Your task to perform on an android device: Search for pizza restaurants on Maps Image 0: 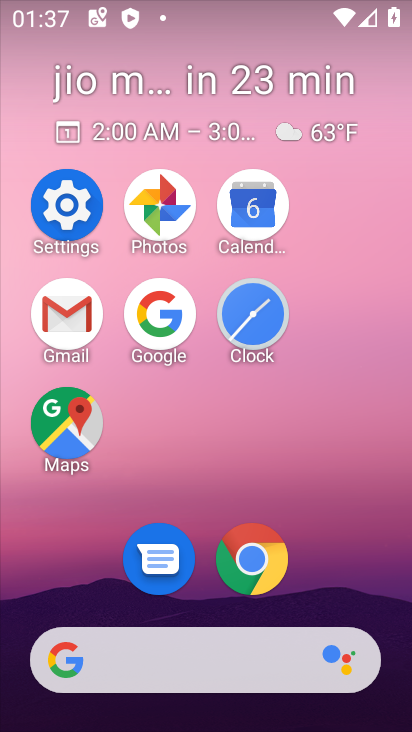
Step 0: click (73, 404)
Your task to perform on an android device: Search for pizza restaurants on Maps Image 1: 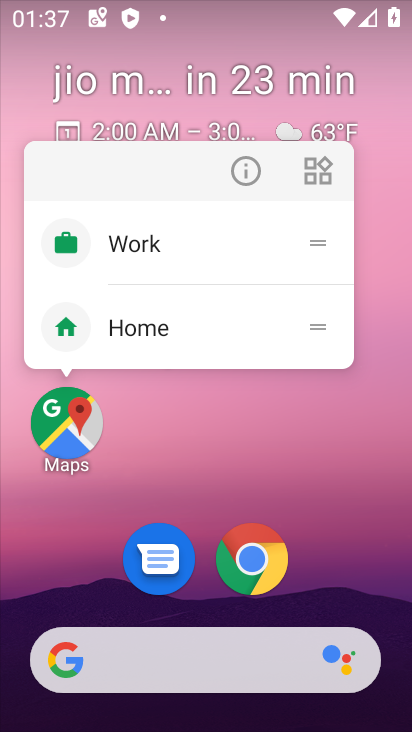
Step 1: click (77, 428)
Your task to perform on an android device: Search for pizza restaurants on Maps Image 2: 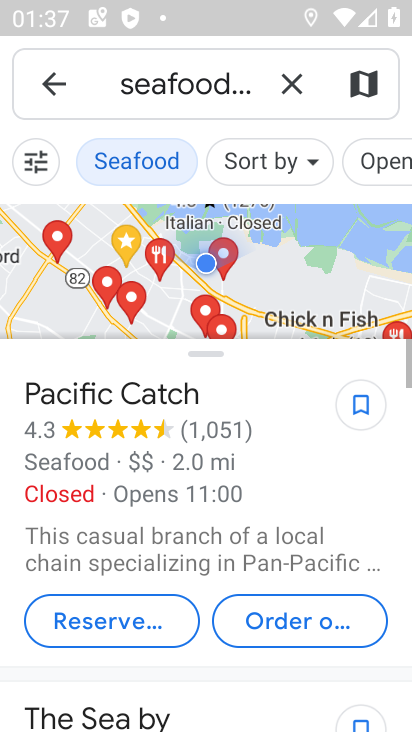
Step 2: click (285, 92)
Your task to perform on an android device: Search for pizza restaurants on Maps Image 3: 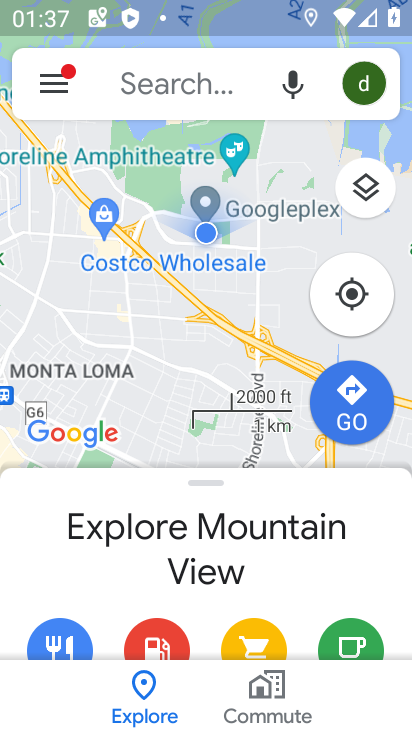
Step 3: click (181, 67)
Your task to perform on an android device: Search for pizza restaurants on Maps Image 4: 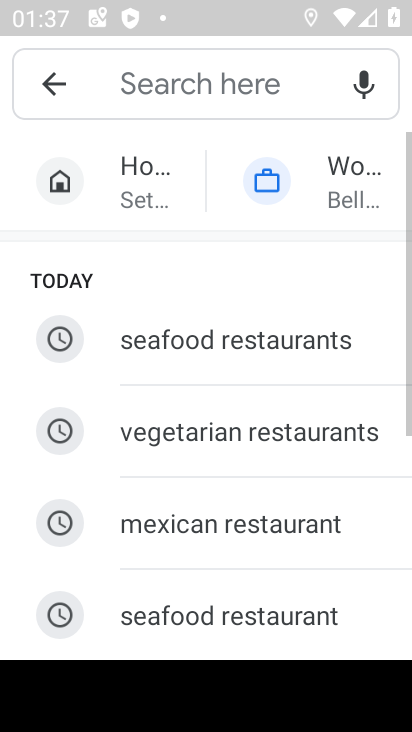
Step 4: drag from (180, 532) to (228, 193)
Your task to perform on an android device: Search for pizza restaurants on Maps Image 5: 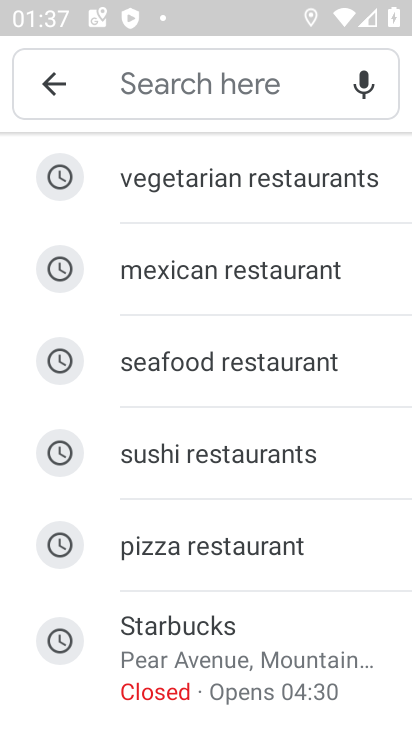
Step 5: click (157, 524)
Your task to perform on an android device: Search for pizza restaurants on Maps Image 6: 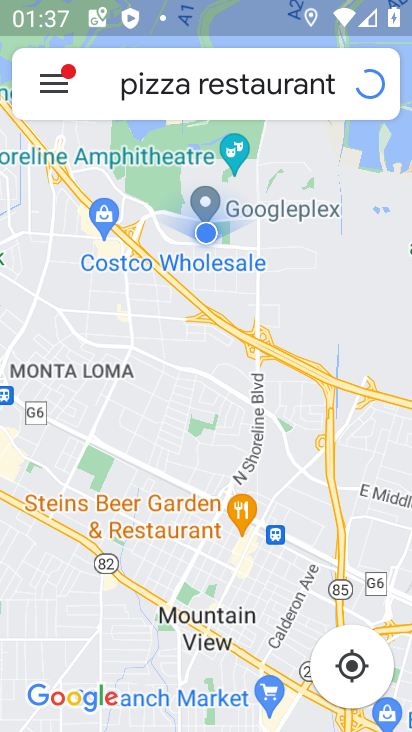
Step 6: task complete